Your task to perform on an android device: Add "razer blackwidow" to the cart on newegg.com Image 0: 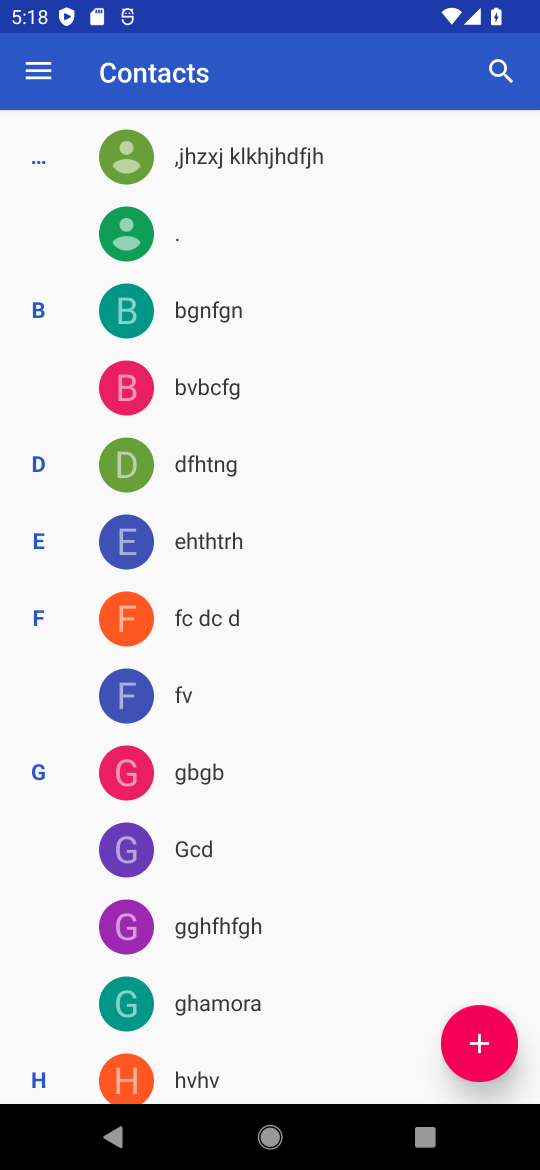
Step 0: press home button
Your task to perform on an android device: Add "razer blackwidow" to the cart on newegg.com Image 1: 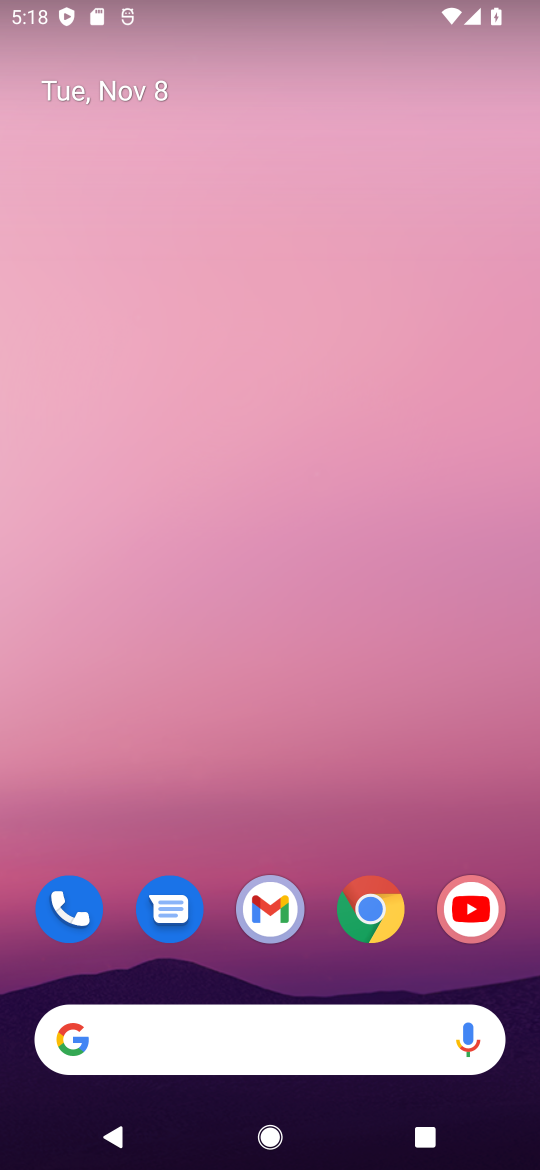
Step 1: click (377, 910)
Your task to perform on an android device: Add "razer blackwidow" to the cart on newegg.com Image 2: 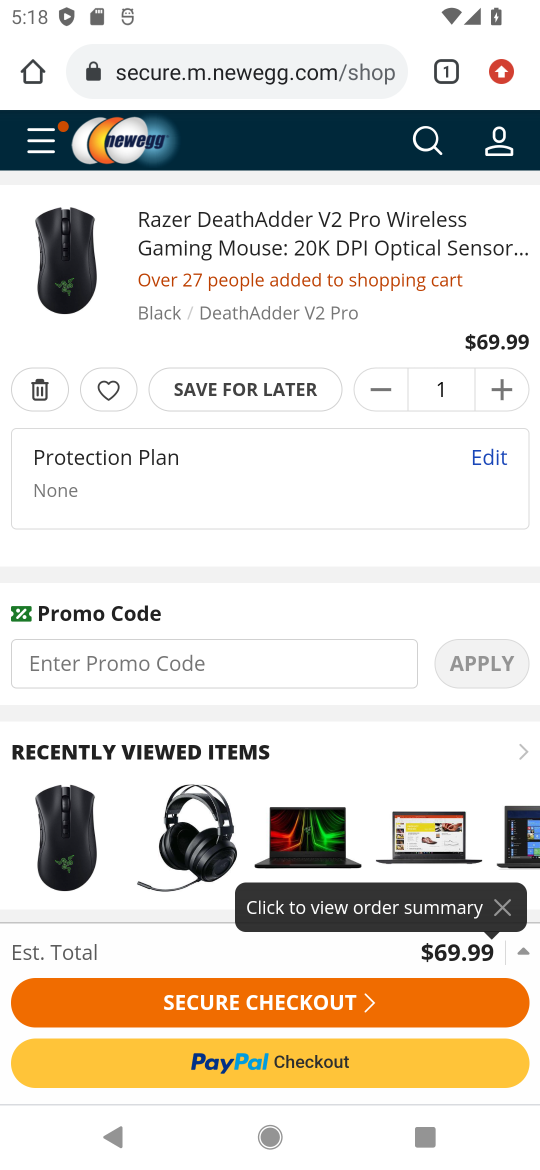
Step 2: click (425, 144)
Your task to perform on an android device: Add "razer blackwidow" to the cart on newegg.com Image 3: 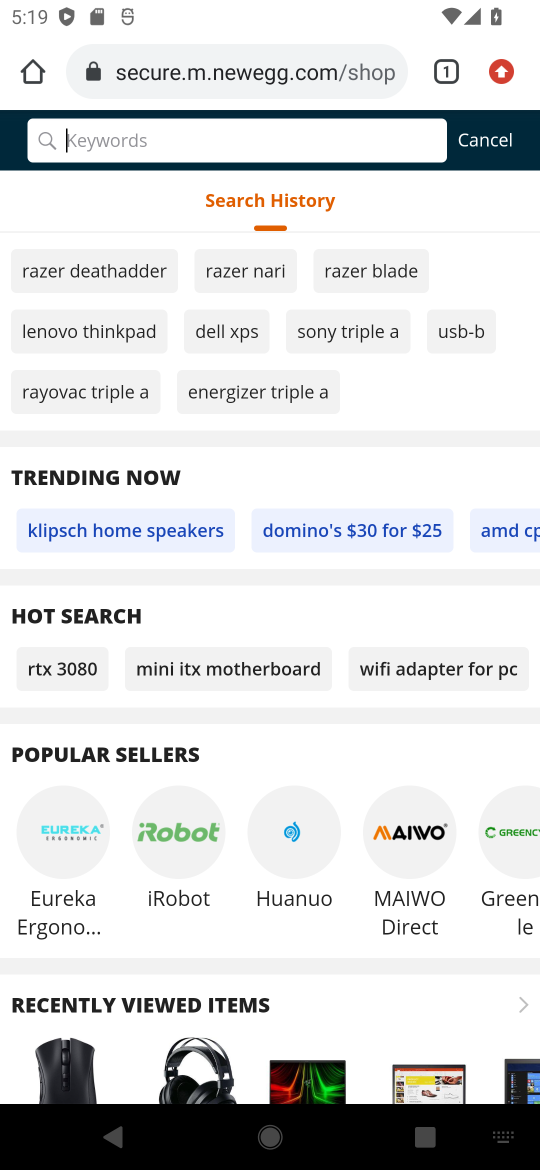
Step 3: type "razer blackwidow"
Your task to perform on an android device: Add "razer blackwidow" to the cart on newegg.com Image 4: 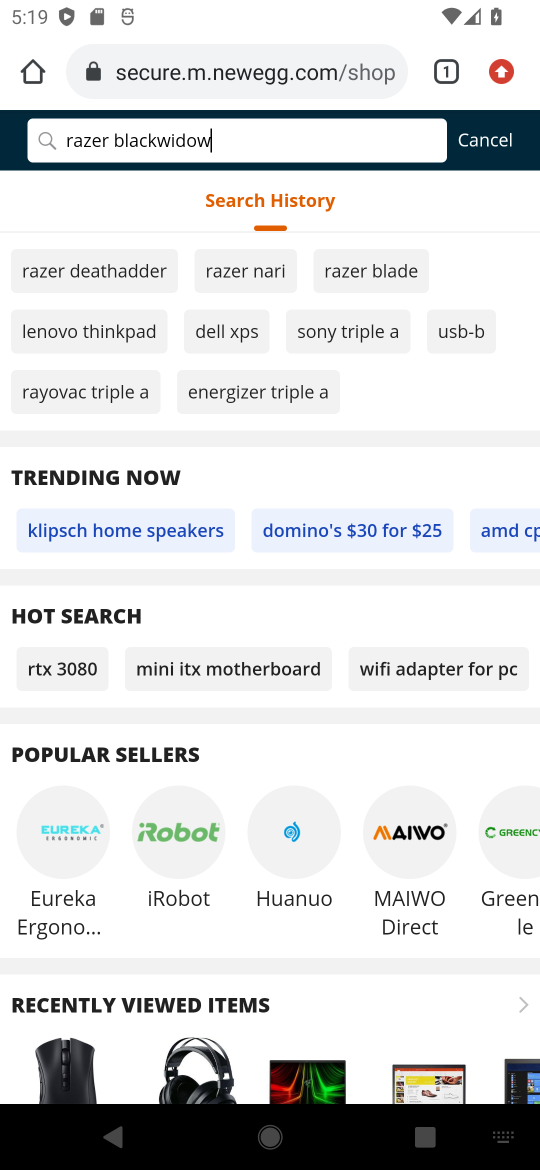
Step 4: press enter
Your task to perform on an android device: Add "razer blackwidow" to the cart on newegg.com Image 5: 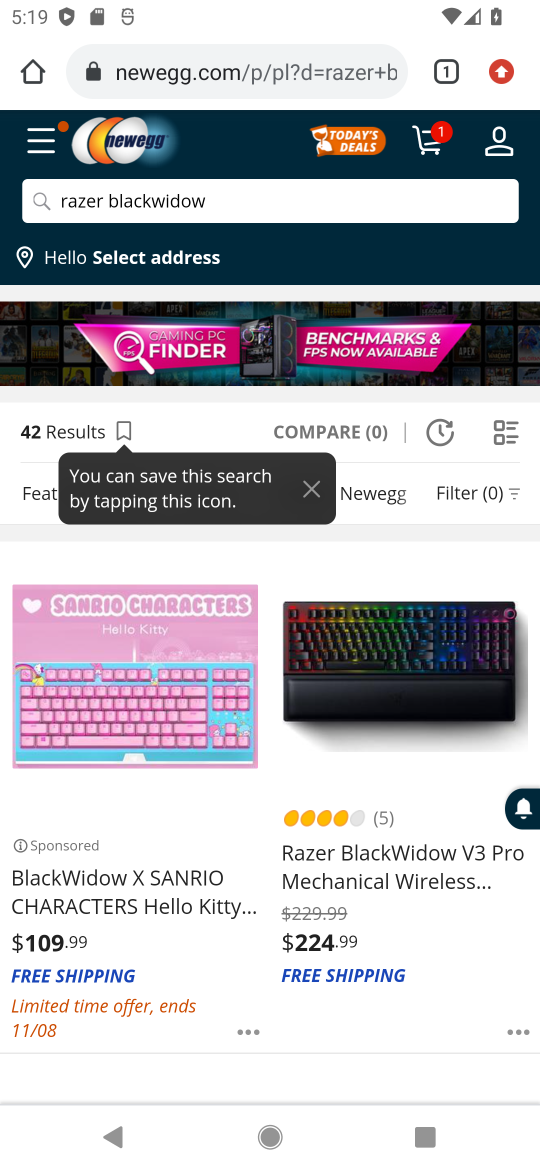
Step 5: click (415, 857)
Your task to perform on an android device: Add "razer blackwidow" to the cart on newegg.com Image 6: 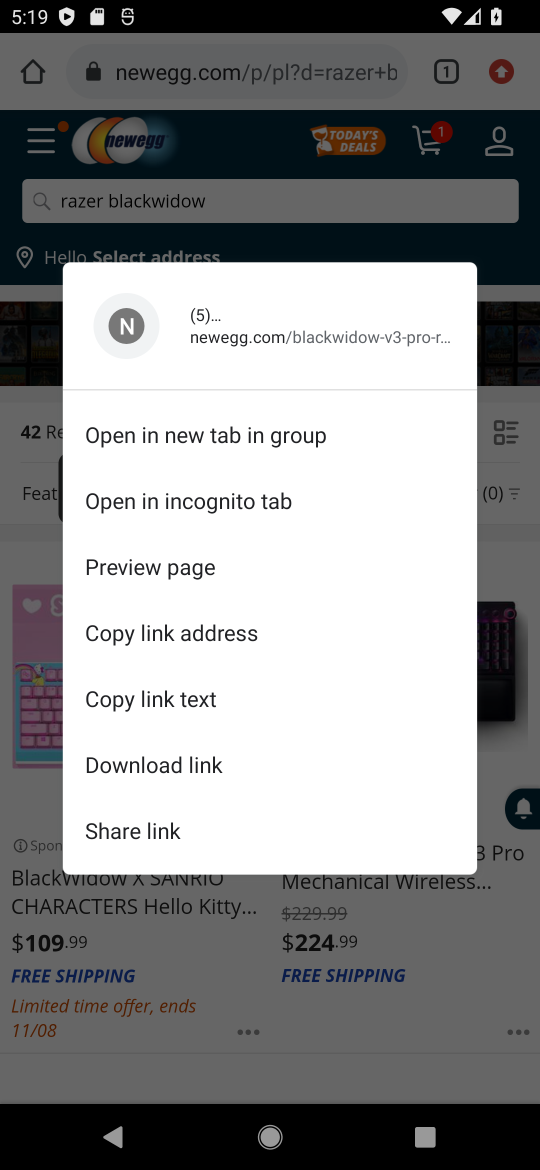
Step 6: click (387, 906)
Your task to perform on an android device: Add "razer blackwidow" to the cart on newegg.com Image 7: 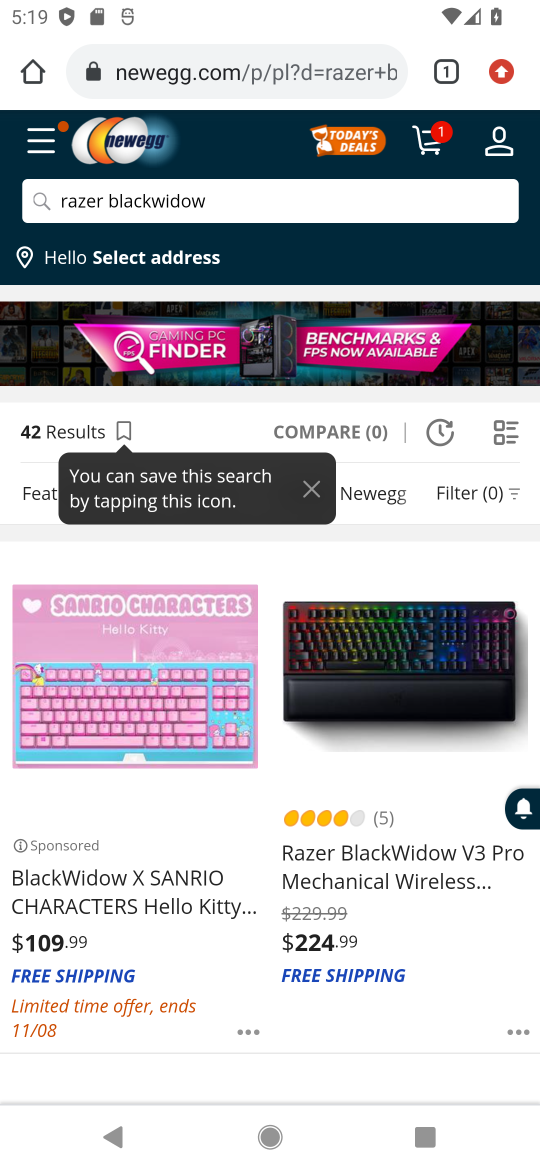
Step 7: click (411, 784)
Your task to perform on an android device: Add "razer blackwidow" to the cart on newegg.com Image 8: 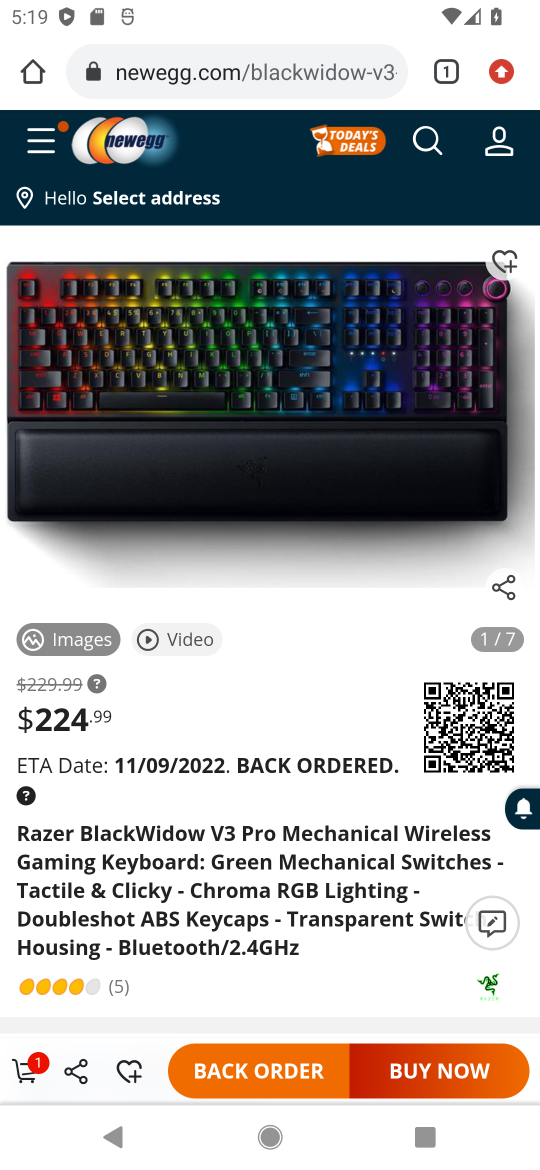
Step 8: drag from (232, 838) to (506, 373)
Your task to perform on an android device: Add "razer blackwidow" to the cart on newegg.com Image 9: 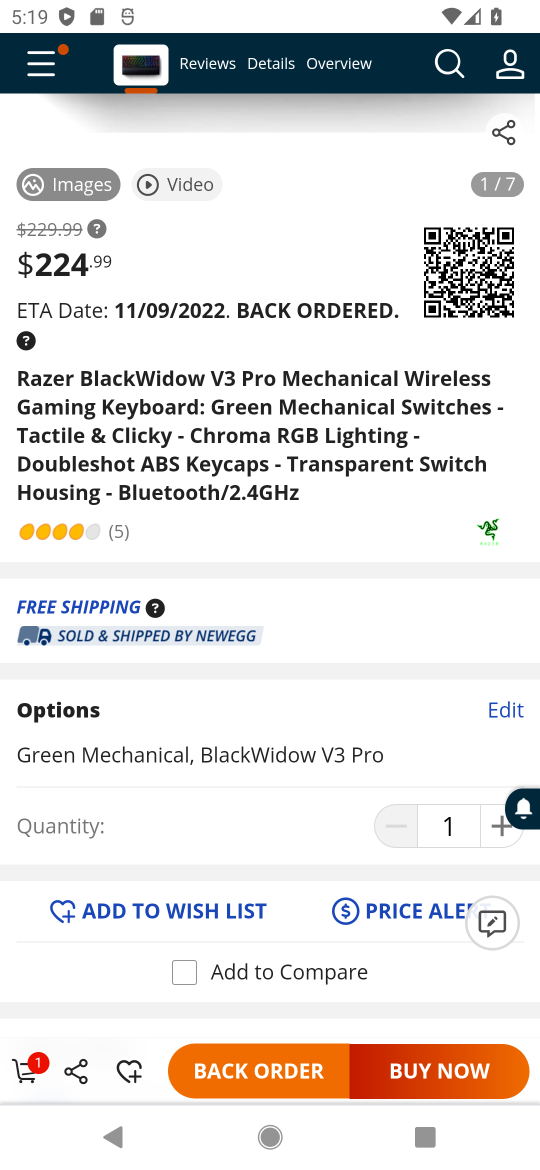
Step 9: drag from (323, 787) to (462, 319)
Your task to perform on an android device: Add "razer blackwidow" to the cart on newegg.com Image 10: 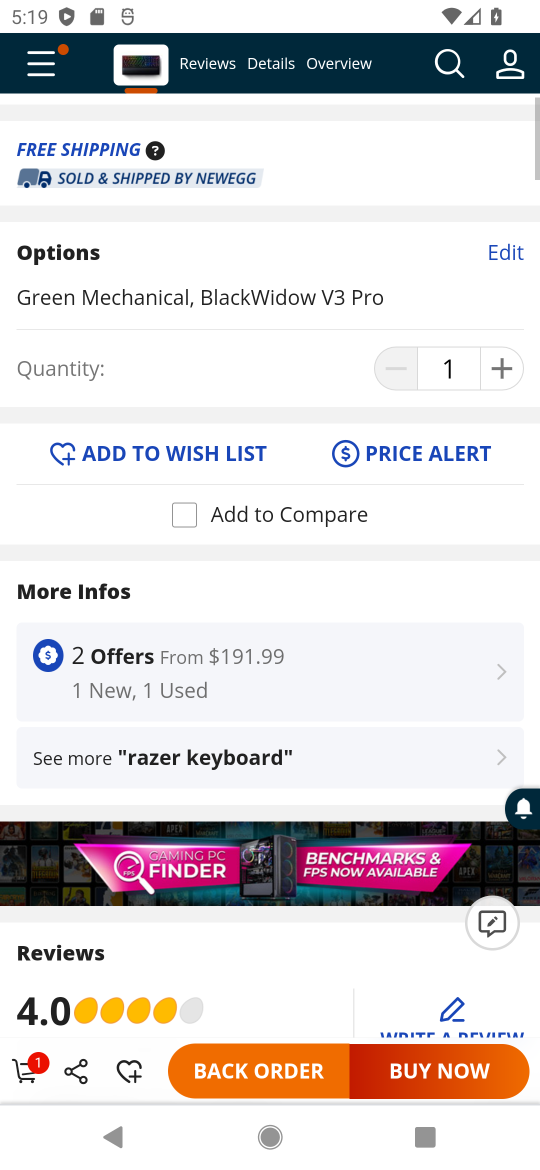
Step 10: drag from (425, 237) to (261, 853)
Your task to perform on an android device: Add "razer blackwidow" to the cart on newegg.com Image 11: 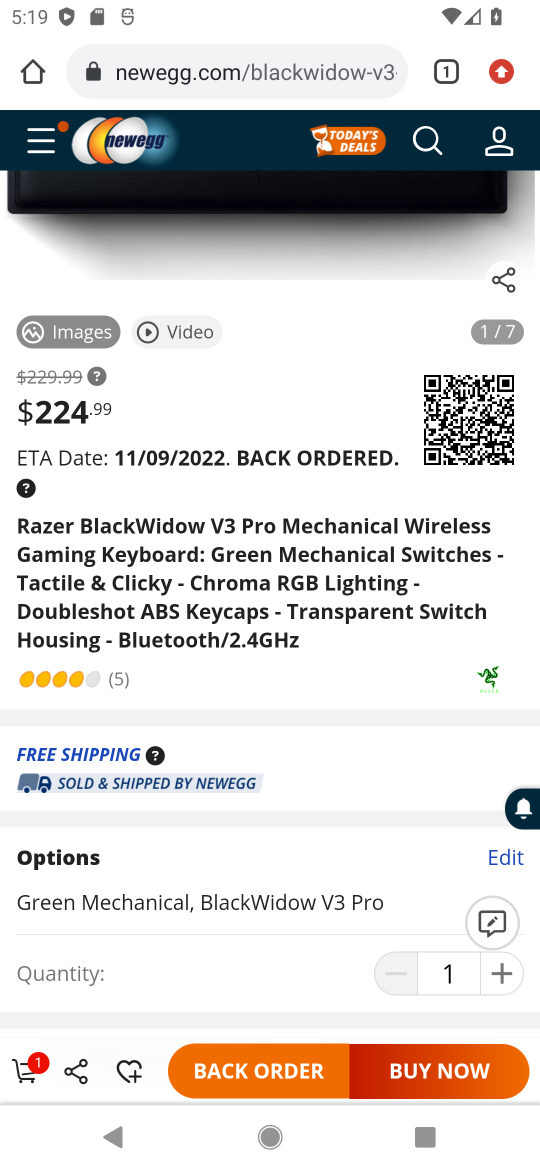
Step 11: drag from (300, 213) to (236, 586)
Your task to perform on an android device: Add "razer blackwidow" to the cart on newegg.com Image 12: 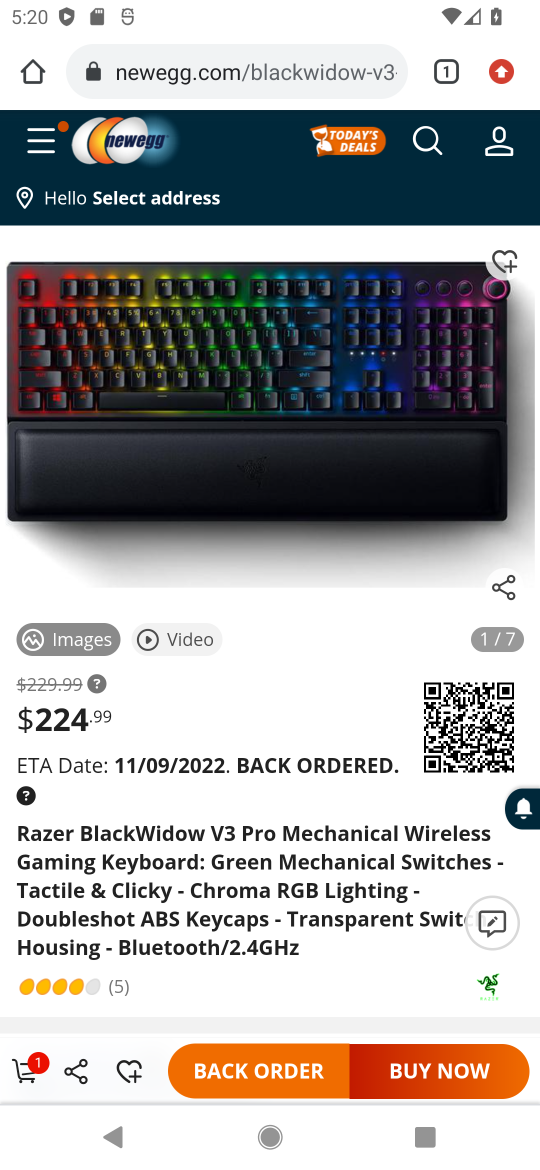
Step 12: drag from (271, 549) to (120, 1078)
Your task to perform on an android device: Add "razer blackwidow" to the cart on newegg.com Image 13: 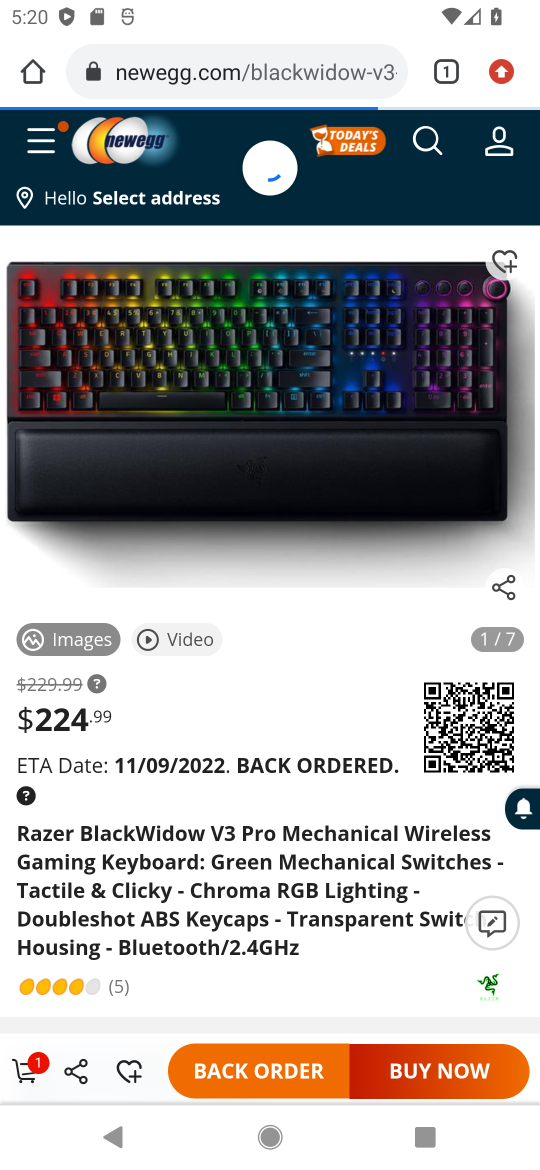
Step 13: click (22, 1064)
Your task to perform on an android device: Add "razer blackwidow" to the cart on newegg.com Image 14: 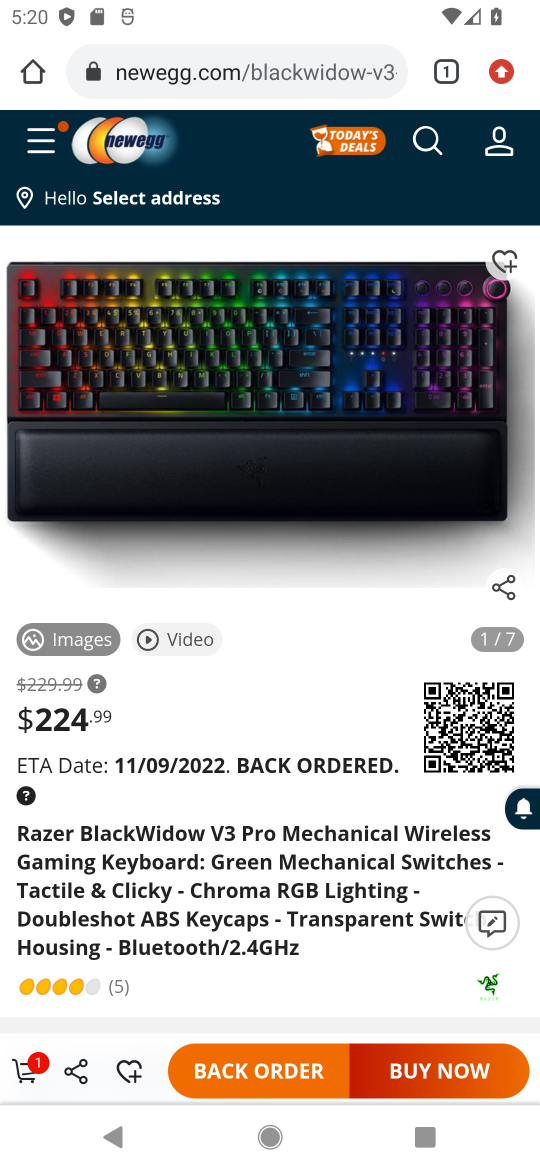
Step 14: click (234, 1077)
Your task to perform on an android device: Add "razer blackwidow" to the cart on newegg.com Image 15: 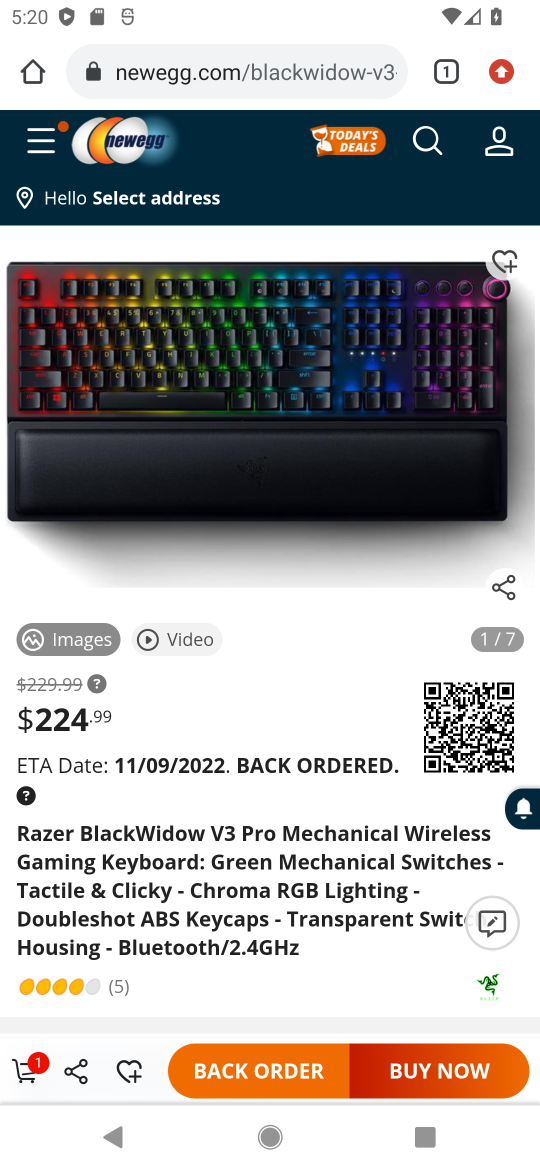
Step 15: click (255, 1067)
Your task to perform on an android device: Add "razer blackwidow" to the cart on newegg.com Image 16: 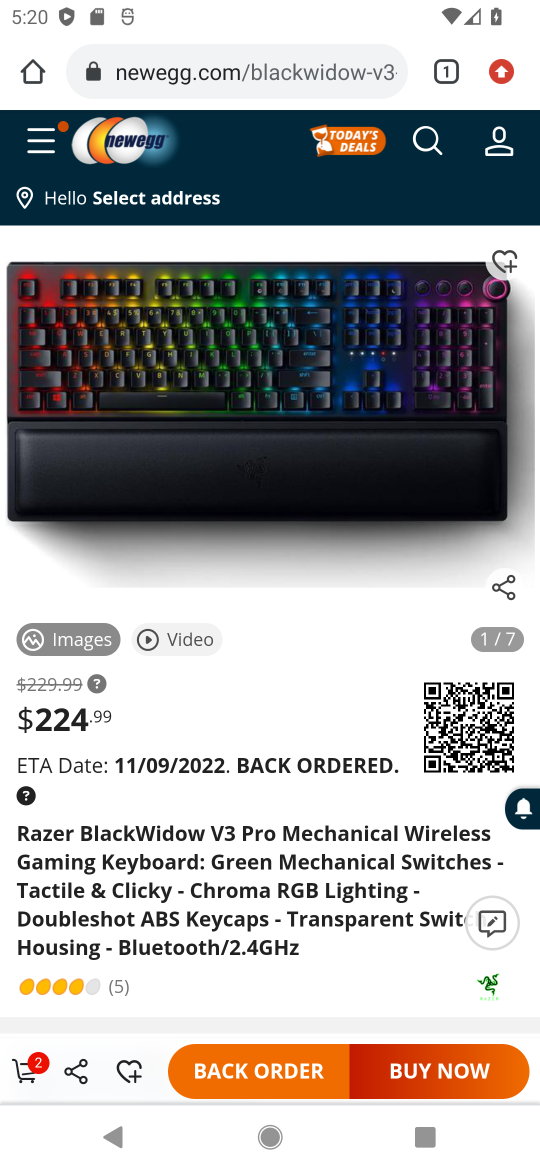
Step 16: click (34, 1072)
Your task to perform on an android device: Add "razer blackwidow" to the cart on newegg.com Image 17: 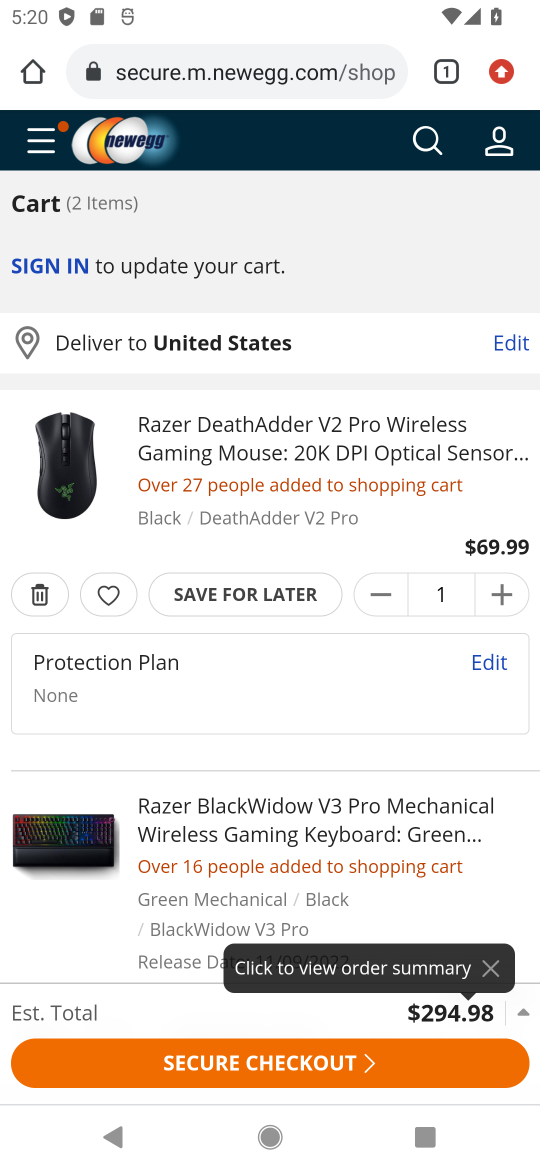
Step 17: task complete